Your task to perform on an android device: clear history in the chrome app Image 0: 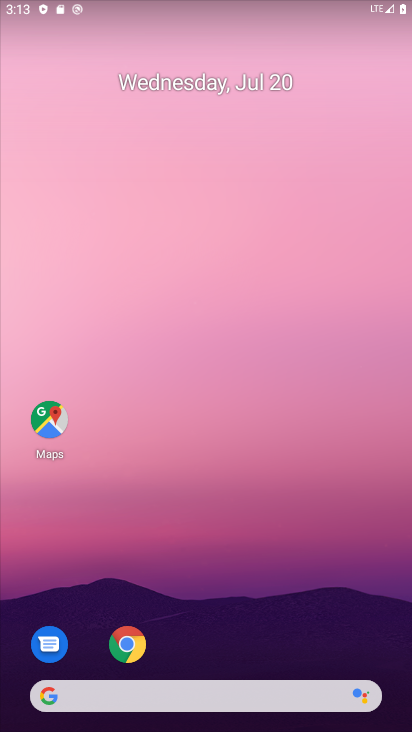
Step 0: click (130, 638)
Your task to perform on an android device: clear history in the chrome app Image 1: 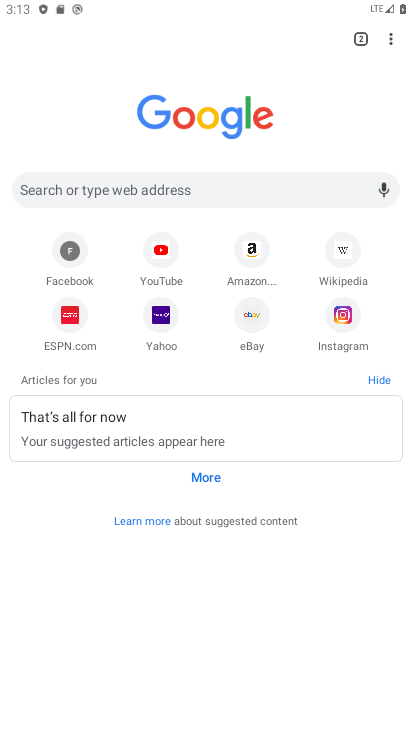
Step 1: click (392, 40)
Your task to perform on an android device: clear history in the chrome app Image 2: 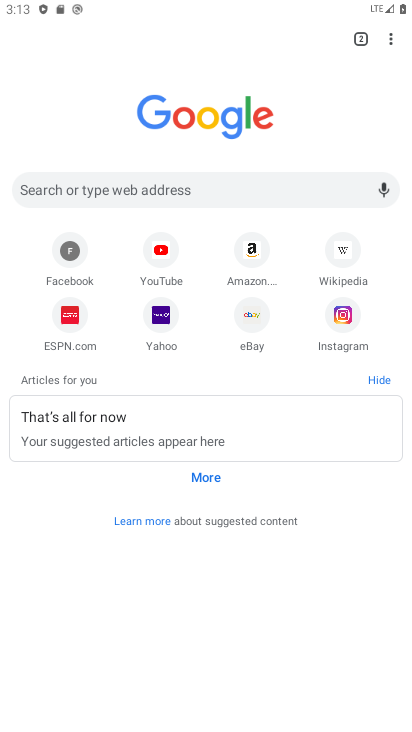
Step 2: click (393, 39)
Your task to perform on an android device: clear history in the chrome app Image 3: 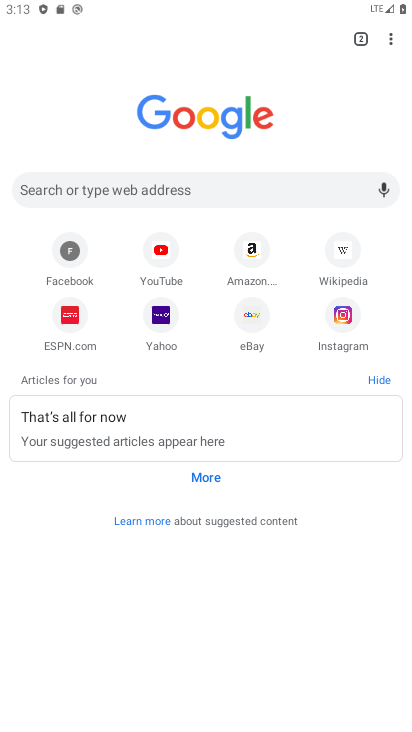
Step 3: click (393, 35)
Your task to perform on an android device: clear history in the chrome app Image 4: 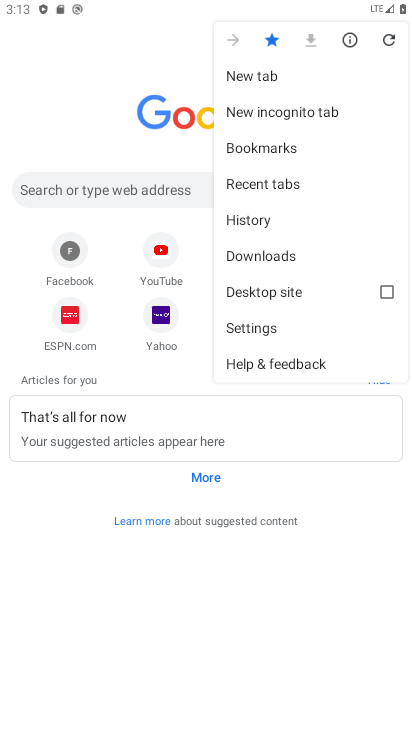
Step 4: click (252, 215)
Your task to perform on an android device: clear history in the chrome app Image 5: 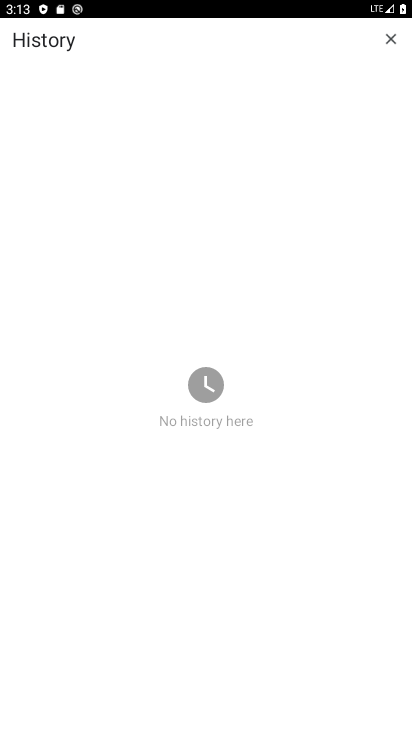
Step 5: task complete